Your task to perform on an android device: change text size in settings app Image 0: 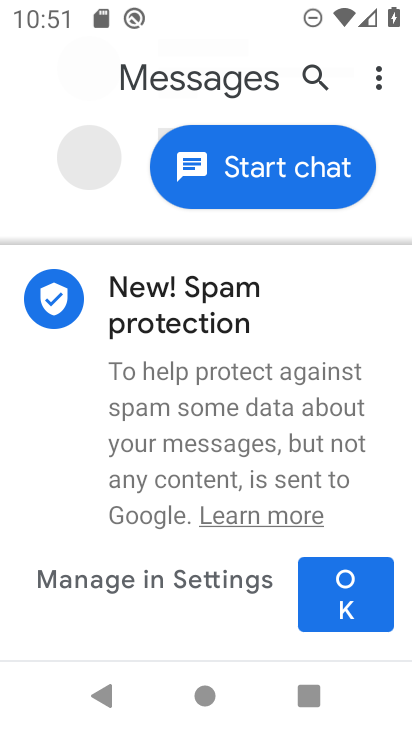
Step 0: press home button
Your task to perform on an android device: change text size in settings app Image 1: 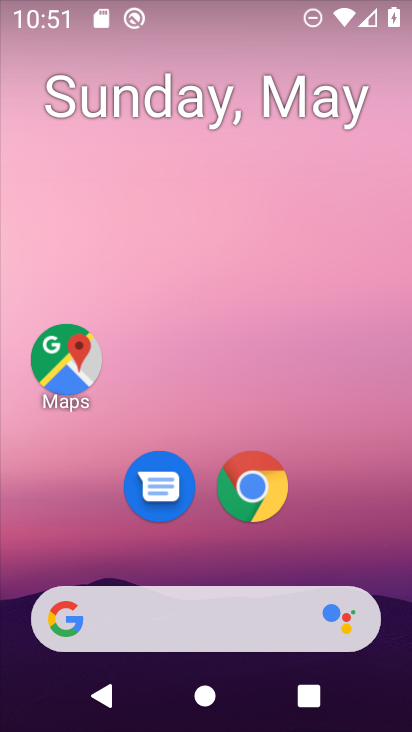
Step 1: drag from (363, 551) to (327, 64)
Your task to perform on an android device: change text size in settings app Image 2: 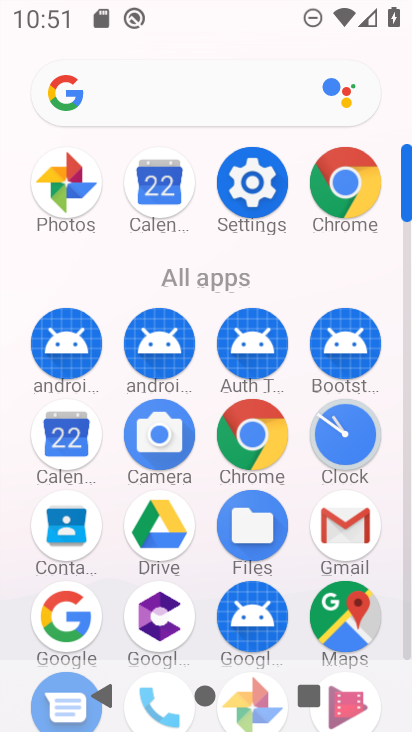
Step 2: click (256, 197)
Your task to perform on an android device: change text size in settings app Image 3: 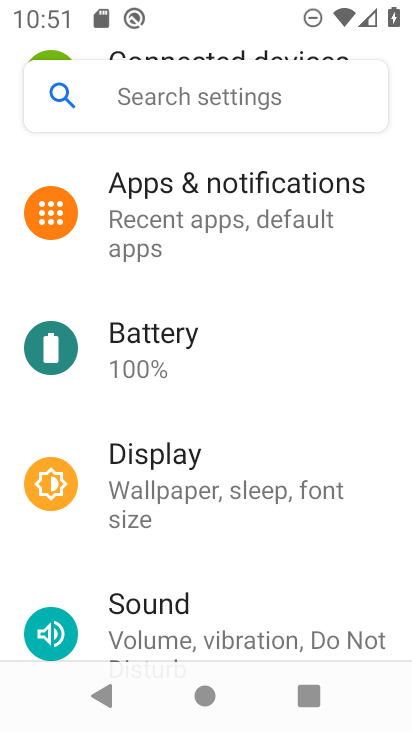
Step 3: drag from (255, 581) to (255, 321)
Your task to perform on an android device: change text size in settings app Image 4: 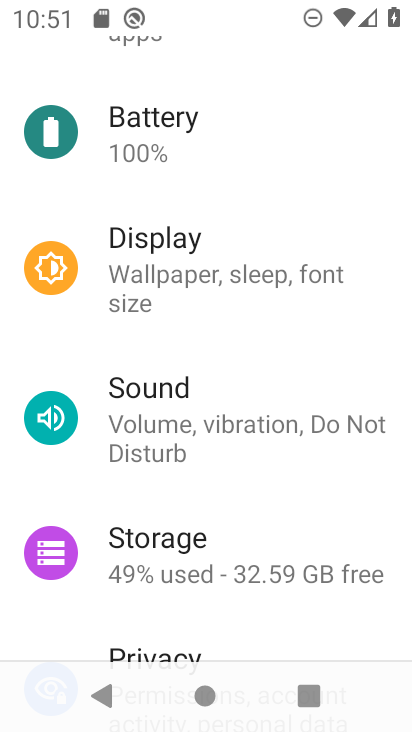
Step 4: click (239, 255)
Your task to perform on an android device: change text size in settings app Image 5: 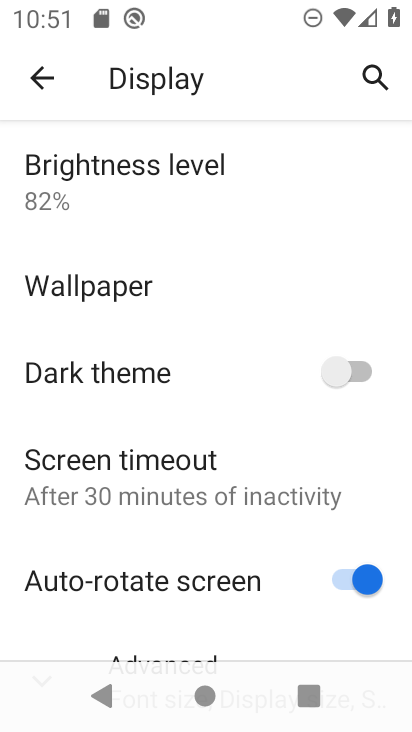
Step 5: drag from (238, 609) to (194, 133)
Your task to perform on an android device: change text size in settings app Image 6: 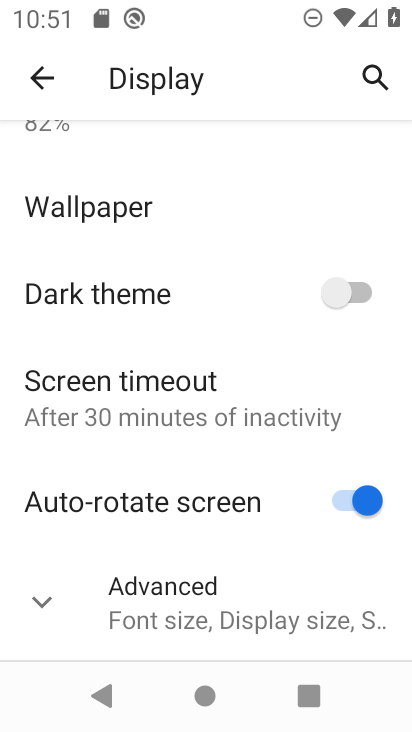
Step 6: click (177, 616)
Your task to perform on an android device: change text size in settings app Image 7: 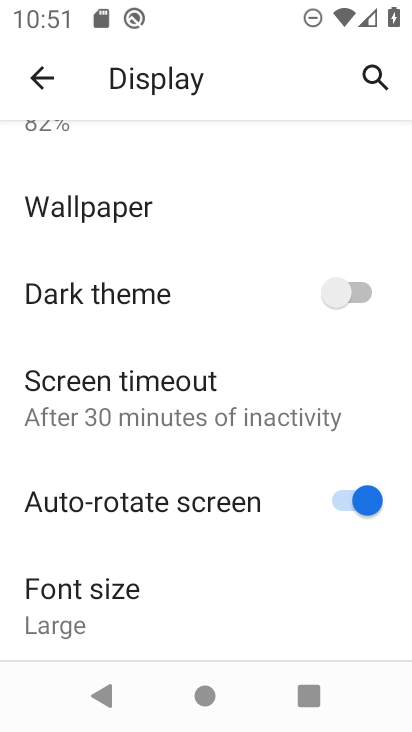
Step 7: click (177, 616)
Your task to perform on an android device: change text size in settings app Image 8: 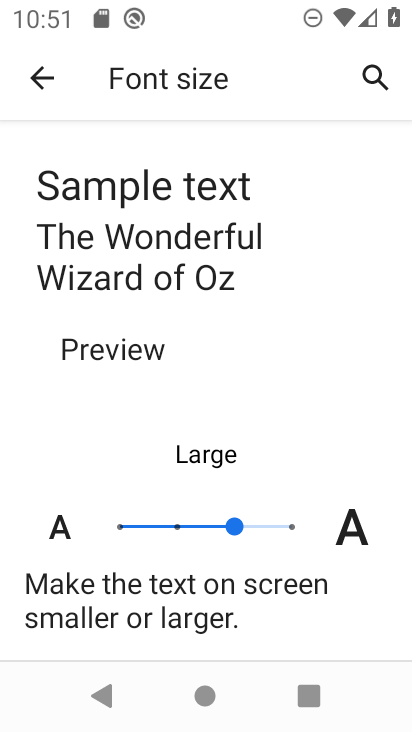
Step 8: task complete